Your task to perform on an android device: change text size in settings app Image 0: 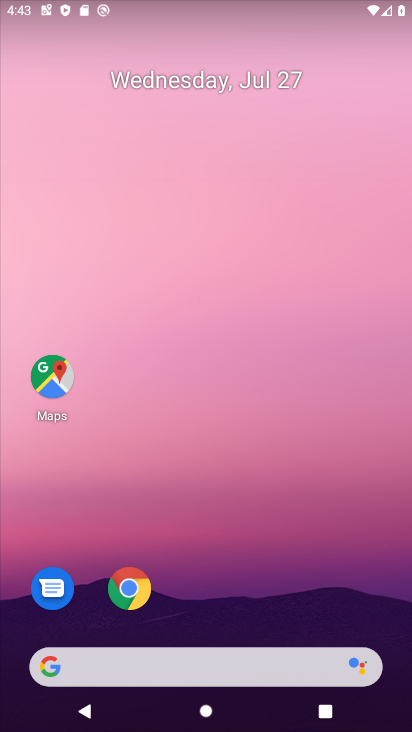
Step 0: drag from (240, 719) to (259, 113)
Your task to perform on an android device: change text size in settings app Image 1: 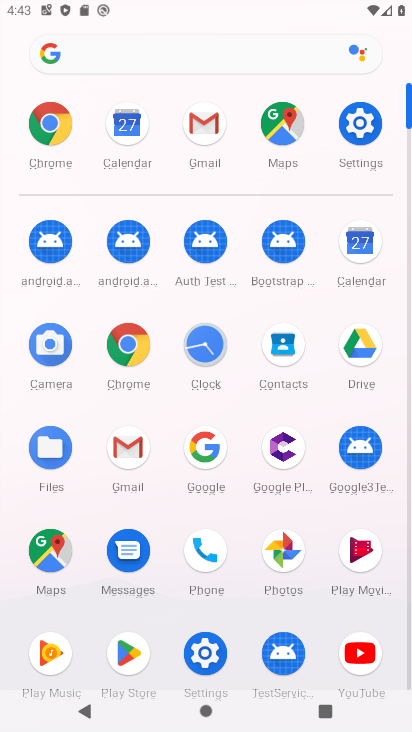
Step 1: click (361, 118)
Your task to perform on an android device: change text size in settings app Image 2: 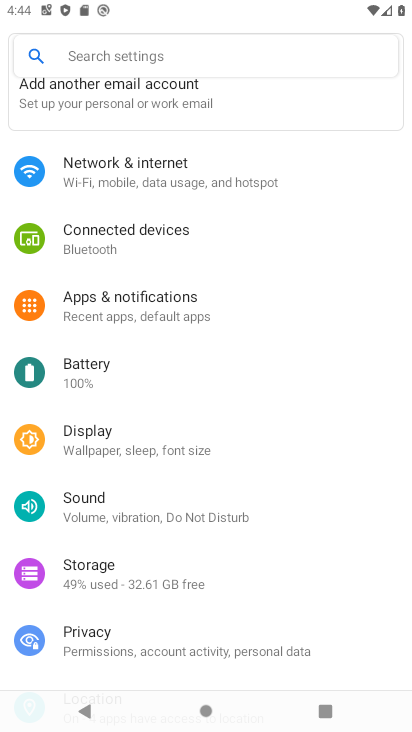
Step 2: click (128, 446)
Your task to perform on an android device: change text size in settings app Image 3: 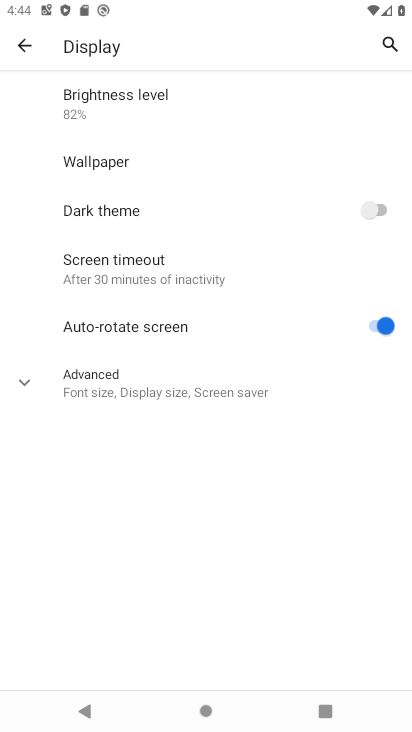
Step 3: click (114, 394)
Your task to perform on an android device: change text size in settings app Image 4: 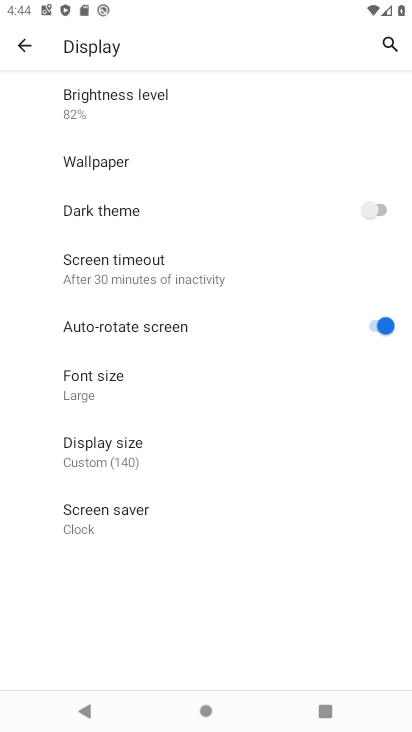
Step 4: click (88, 376)
Your task to perform on an android device: change text size in settings app Image 5: 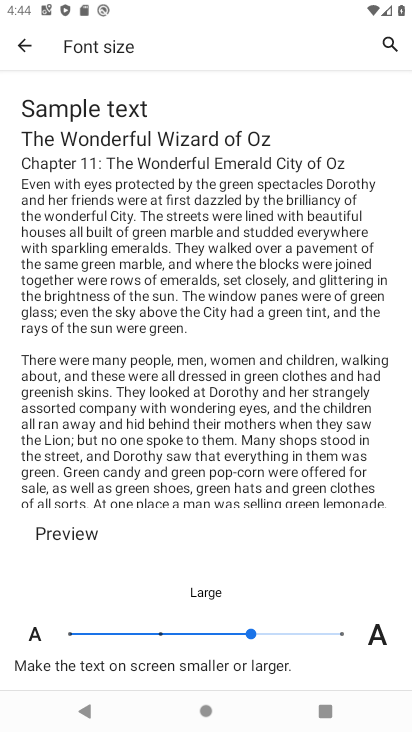
Step 5: click (337, 632)
Your task to perform on an android device: change text size in settings app Image 6: 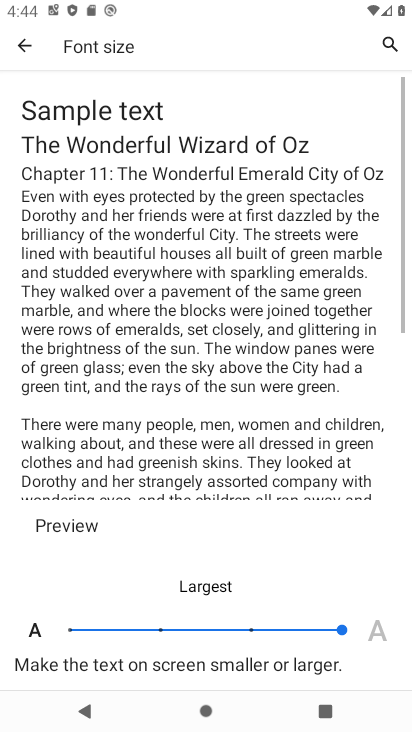
Step 6: task complete